Your task to perform on an android device: Show me popular games on the Play Store Image 0: 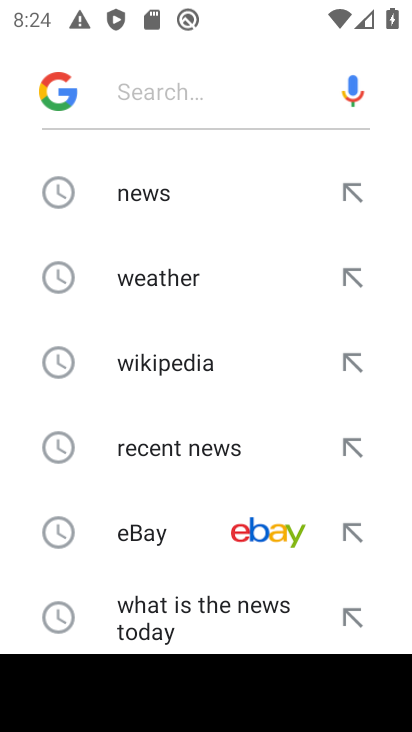
Step 0: press home button
Your task to perform on an android device: Show me popular games on the Play Store Image 1: 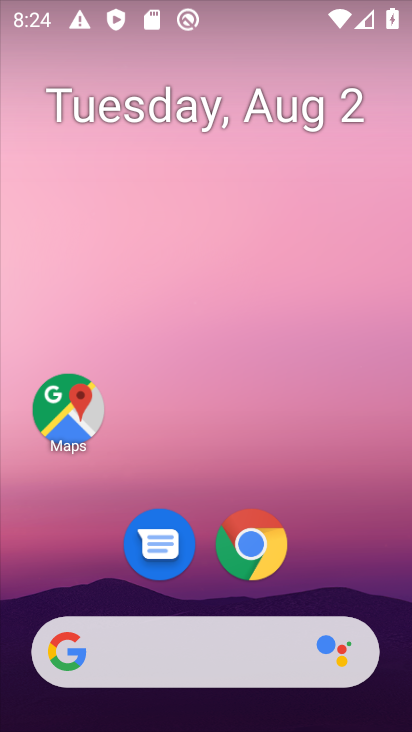
Step 1: drag from (195, 650) to (302, 133)
Your task to perform on an android device: Show me popular games on the Play Store Image 2: 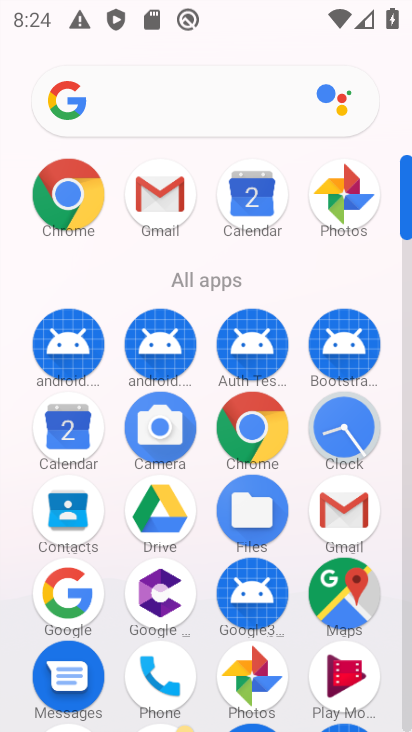
Step 2: drag from (204, 569) to (305, 133)
Your task to perform on an android device: Show me popular games on the Play Store Image 3: 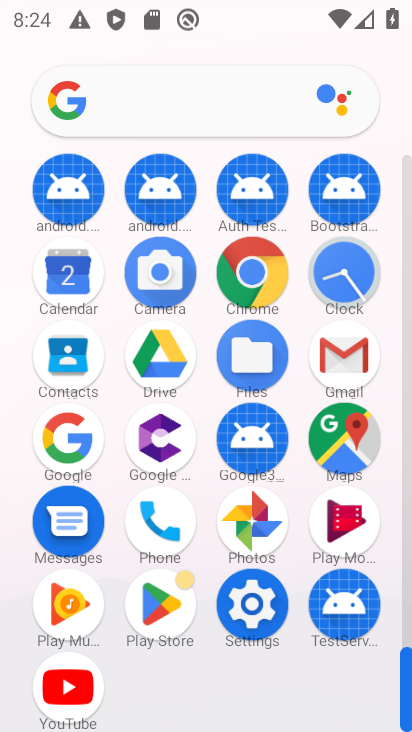
Step 3: click (158, 602)
Your task to perform on an android device: Show me popular games on the Play Store Image 4: 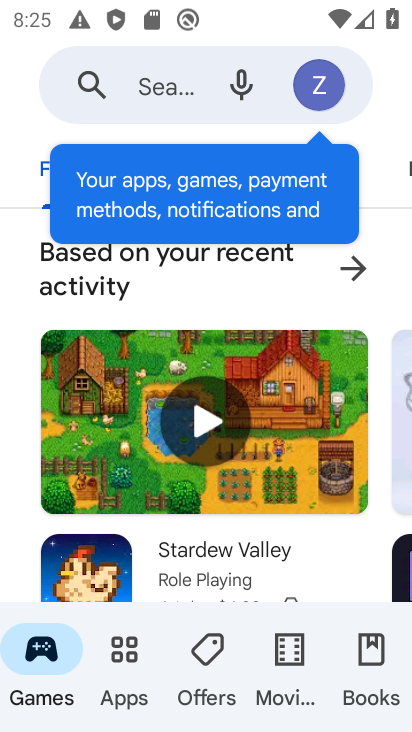
Step 4: task complete